Your task to perform on an android device: turn on translation in the chrome app Image 0: 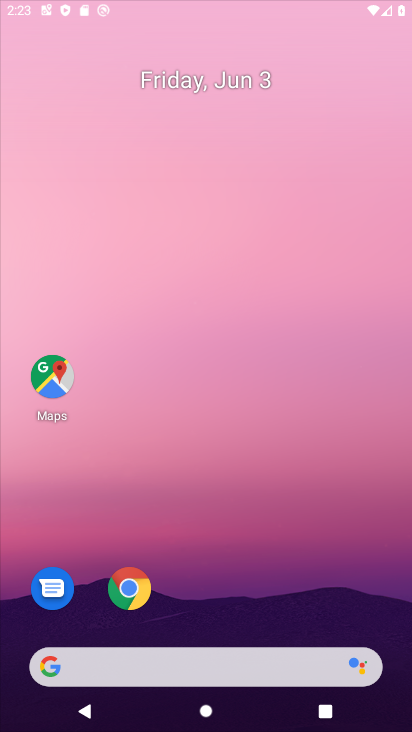
Step 0: drag from (234, 506) to (285, 1)
Your task to perform on an android device: turn on translation in the chrome app Image 1: 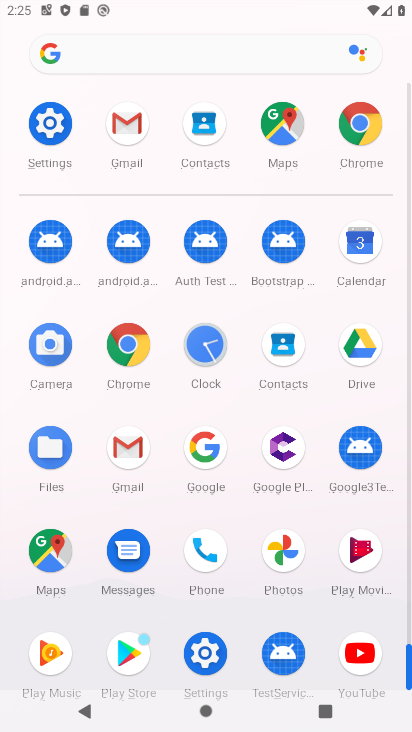
Step 1: click (126, 359)
Your task to perform on an android device: turn on translation in the chrome app Image 2: 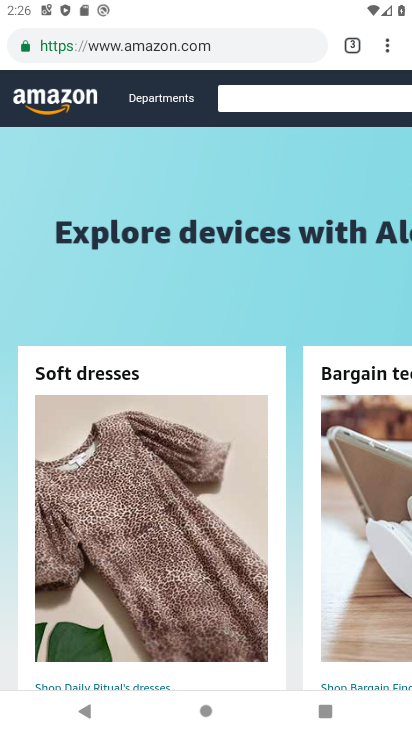
Step 2: click (390, 47)
Your task to perform on an android device: turn on translation in the chrome app Image 3: 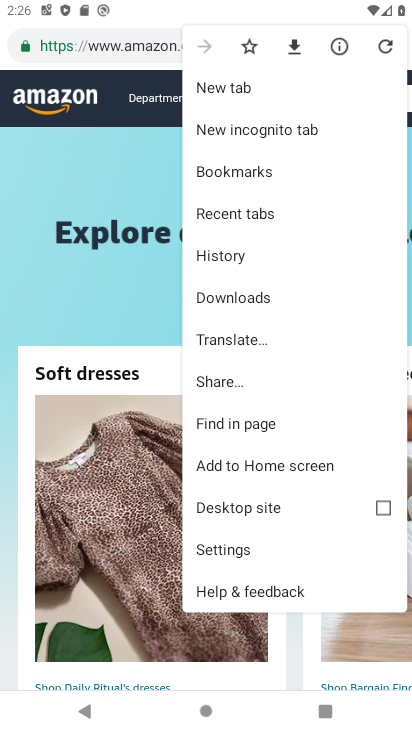
Step 3: click (239, 550)
Your task to perform on an android device: turn on translation in the chrome app Image 4: 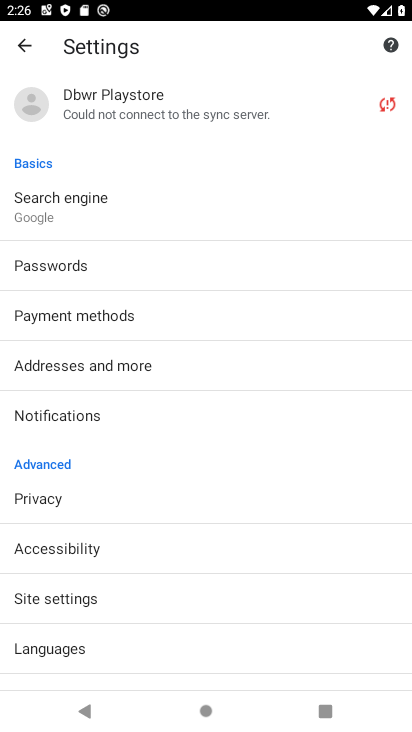
Step 4: drag from (168, 590) to (159, 197)
Your task to perform on an android device: turn on translation in the chrome app Image 5: 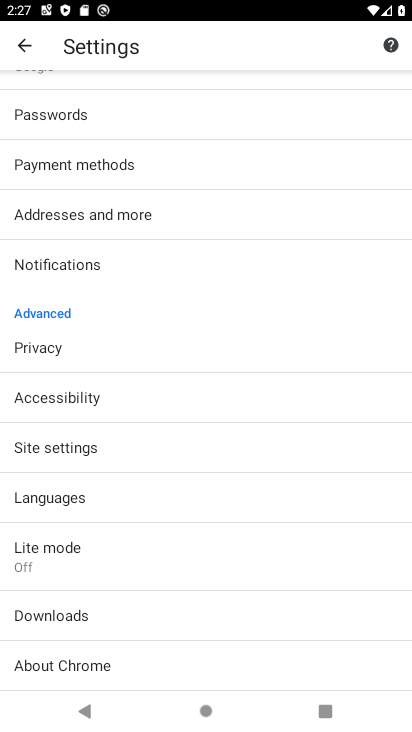
Step 5: click (116, 494)
Your task to perform on an android device: turn on translation in the chrome app Image 6: 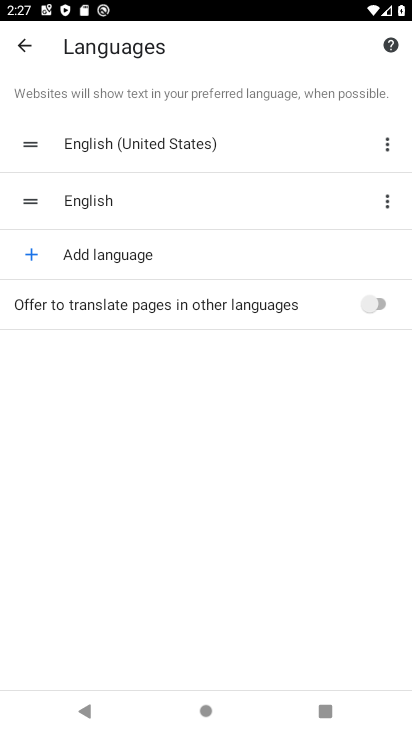
Step 6: click (370, 310)
Your task to perform on an android device: turn on translation in the chrome app Image 7: 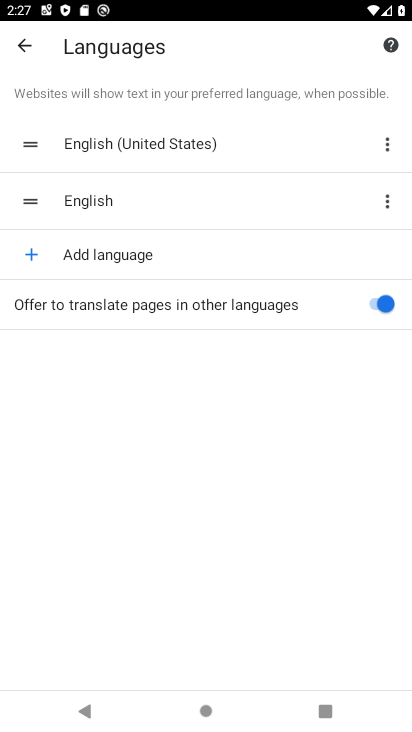
Step 7: task complete